Your task to perform on an android device: Go to eBay Image 0: 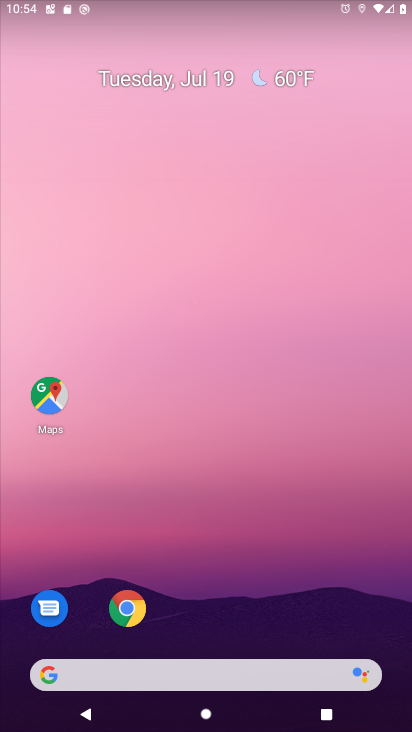
Step 0: click (131, 591)
Your task to perform on an android device: Go to eBay Image 1: 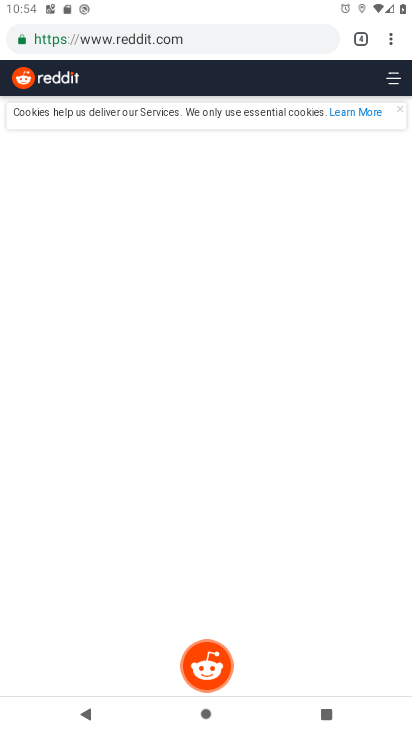
Step 1: click (361, 35)
Your task to perform on an android device: Go to eBay Image 2: 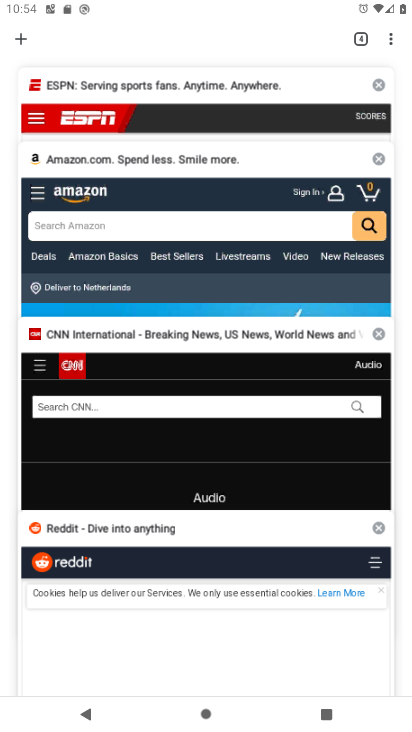
Step 2: click (15, 44)
Your task to perform on an android device: Go to eBay Image 3: 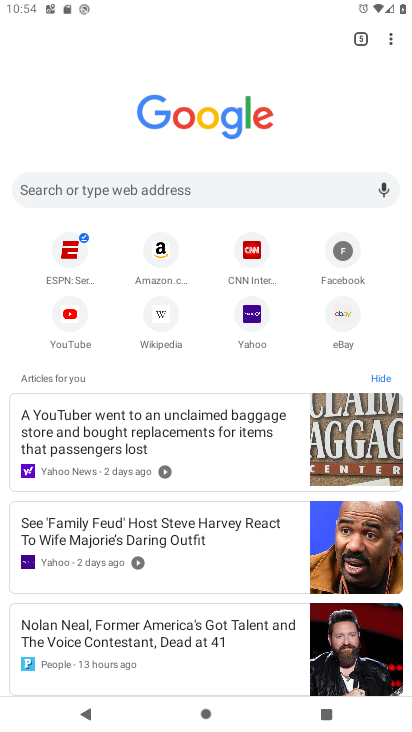
Step 3: click (341, 307)
Your task to perform on an android device: Go to eBay Image 4: 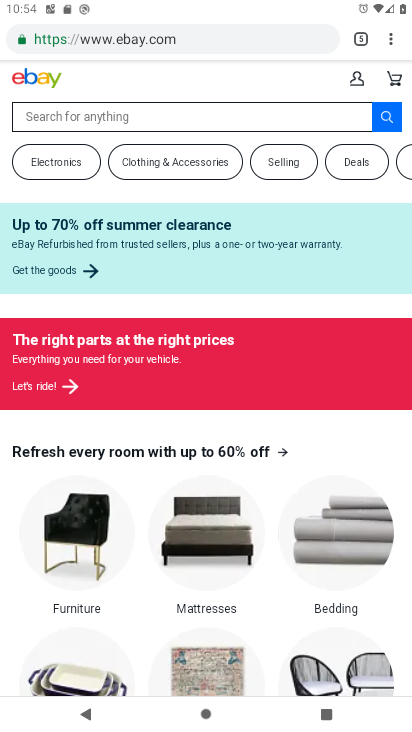
Step 4: task complete